Your task to perform on an android device: toggle data saver in the chrome app Image 0: 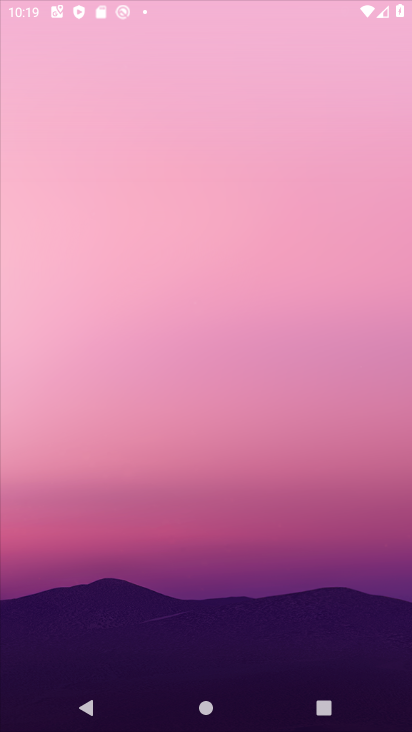
Step 0: drag from (247, 674) to (265, 195)
Your task to perform on an android device: toggle data saver in the chrome app Image 1: 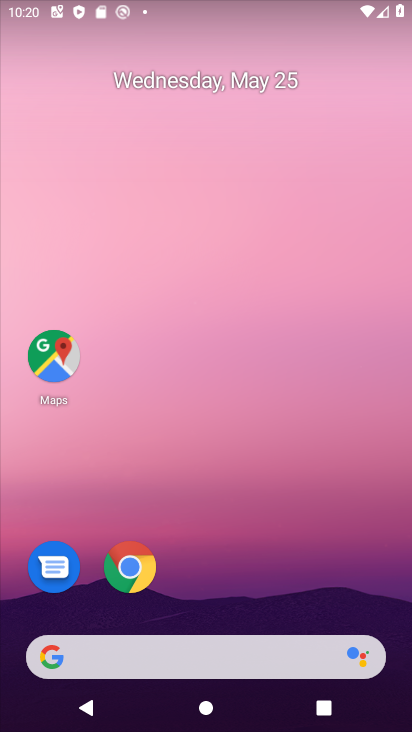
Step 1: drag from (279, 723) to (250, 4)
Your task to perform on an android device: toggle data saver in the chrome app Image 2: 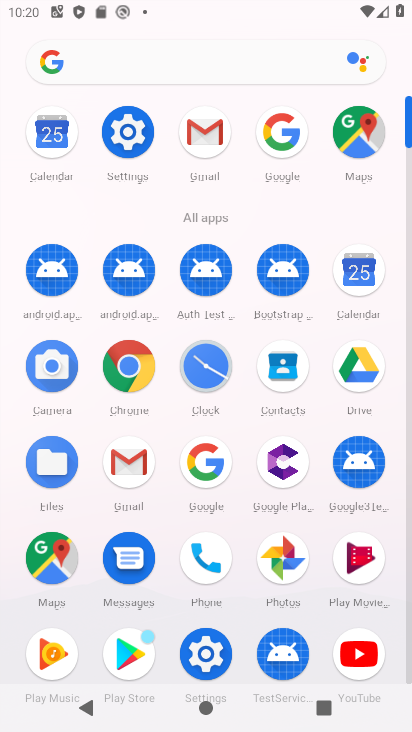
Step 2: click (126, 351)
Your task to perform on an android device: toggle data saver in the chrome app Image 3: 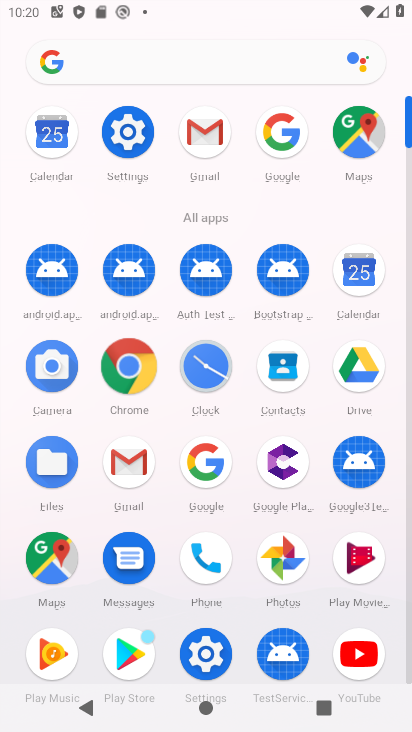
Step 3: click (125, 351)
Your task to perform on an android device: toggle data saver in the chrome app Image 4: 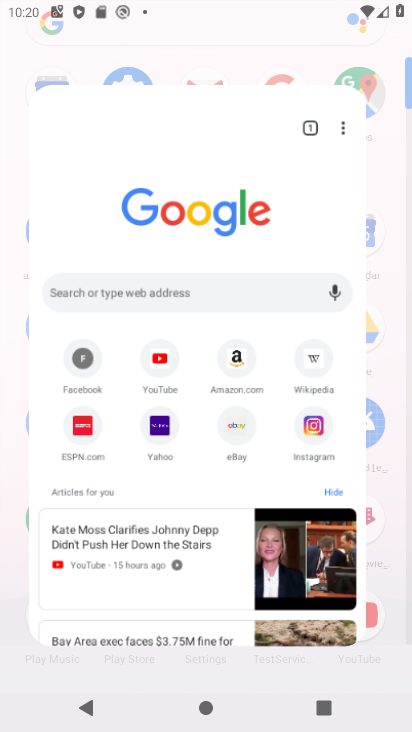
Step 4: click (71, 363)
Your task to perform on an android device: toggle data saver in the chrome app Image 5: 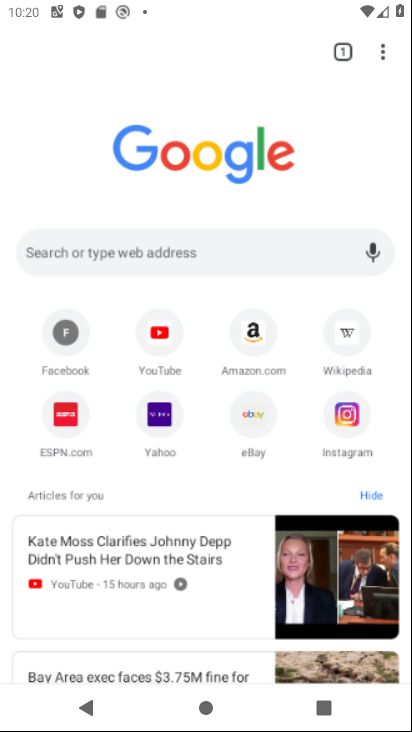
Step 5: click (55, 365)
Your task to perform on an android device: toggle data saver in the chrome app Image 6: 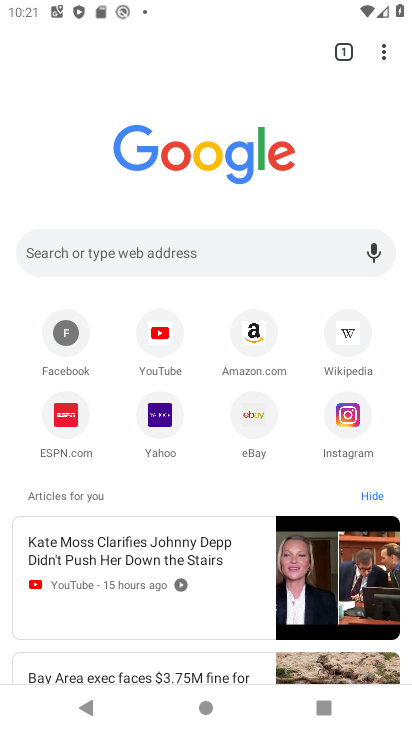
Step 6: drag from (383, 52) to (200, 444)
Your task to perform on an android device: toggle data saver in the chrome app Image 7: 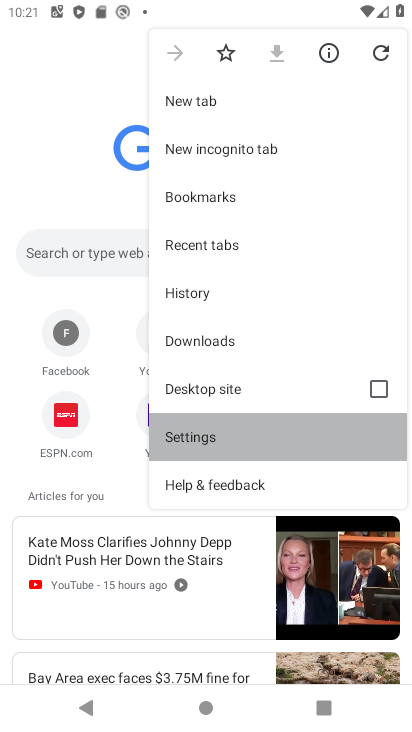
Step 7: click (199, 436)
Your task to perform on an android device: toggle data saver in the chrome app Image 8: 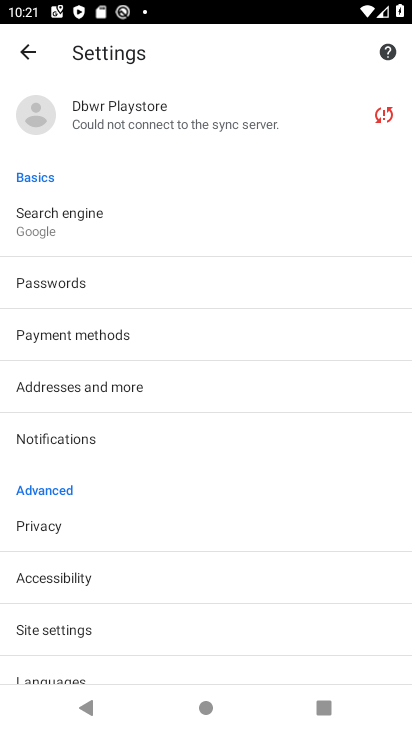
Step 8: drag from (58, 534) to (24, 123)
Your task to perform on an android device: toggle data saver in the chrome app Image 9: 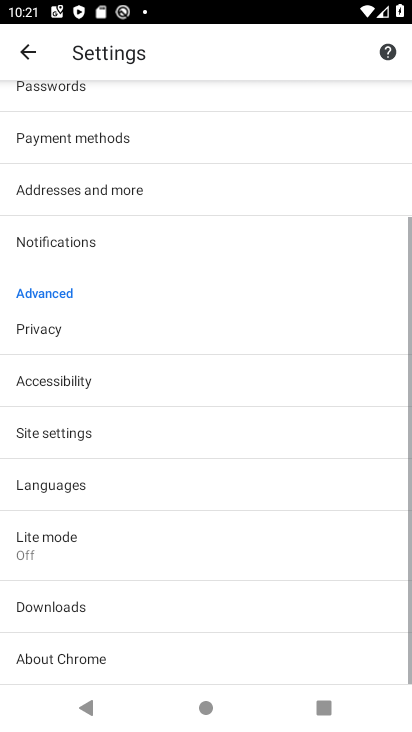
Step 9: drag from (94, 463) to (95, 39)
Your task to perform on an android device: toggle data saver in the chrome app Image 10: 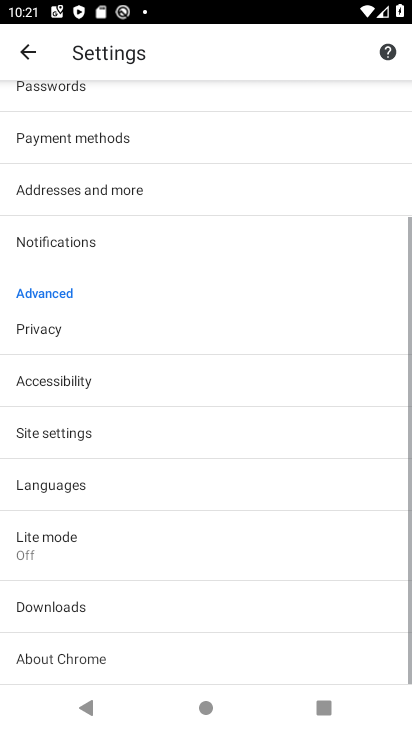
Step 10: drag from (227, 557) to (233, 53)
Your task to perform on an android device: toggle data saver in the chrome app Image 11: 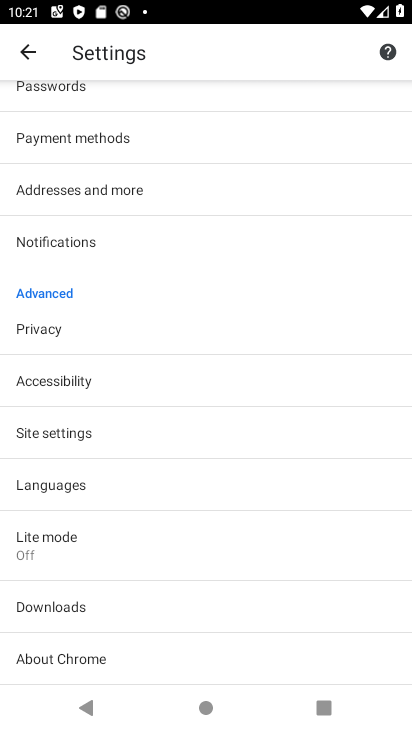
Step 11: click (39, 529)
Your task to perform on an android device: toggle data saver in the chrome app Image 12: 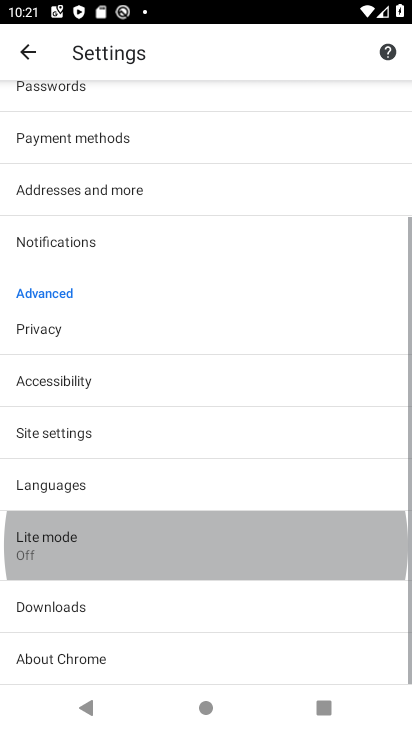
Step 12: click (40, 528)
Your task to perform on an android device: toggle data saver in the chrome app Image 13: 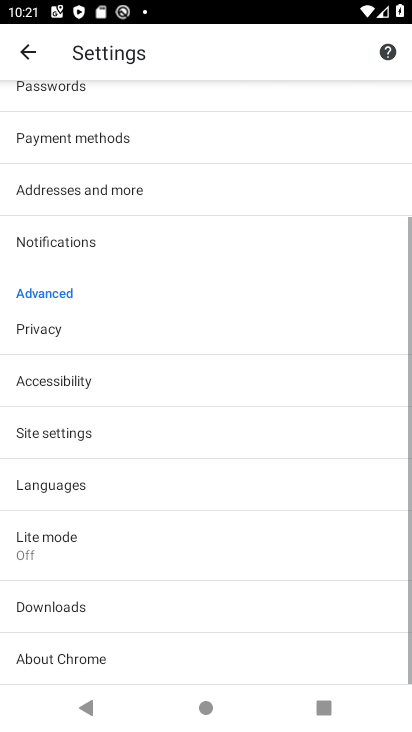
Step 13: click (42, 527)
Your task to perform on an android device: toggle data saver in the chrome app Image 14: 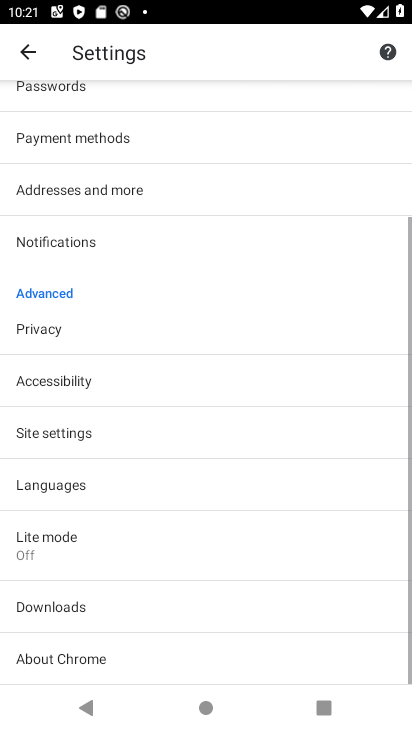
Step 14: click (43, 527)
Your task to perform on an android device: toggle data saver in the chrome app Image 15: 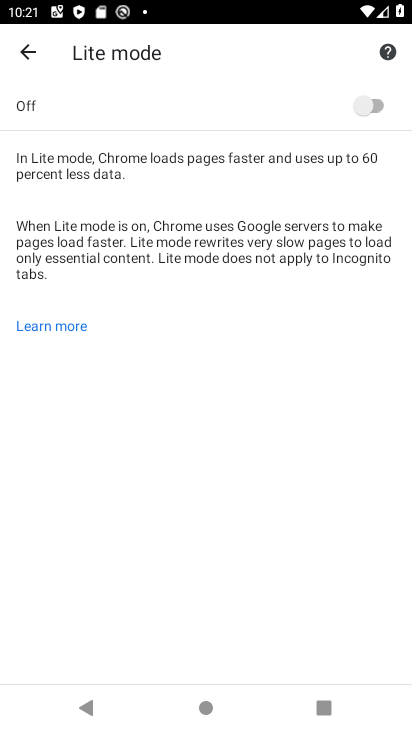
Step 15: click (360, 106)
Your task to perform on an android device: toggle data saver in the chrome app Image 16: 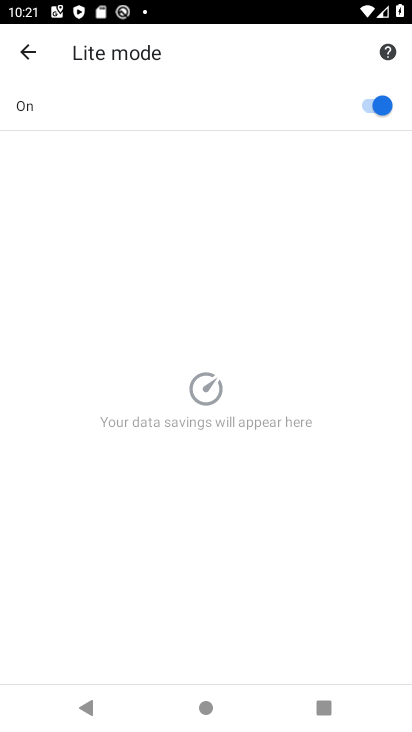
Step 16: task complete